Your task to perform on an android device: When is my next appointment? Image 0: 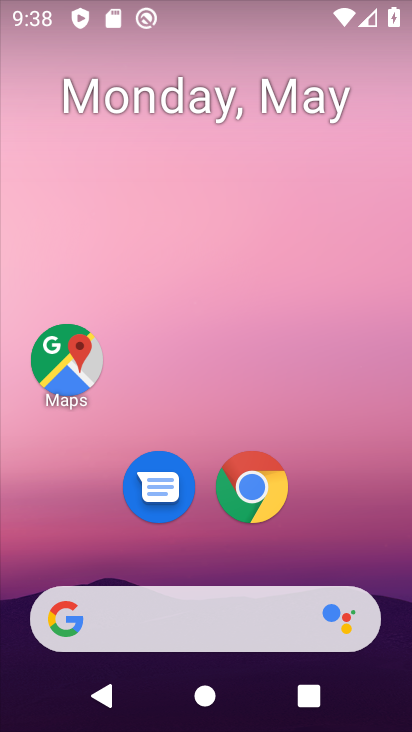
Step 0: drag from (226, 509) to (238, 79)
Your task to perform on an android device: When is my next appointment? Image 1: 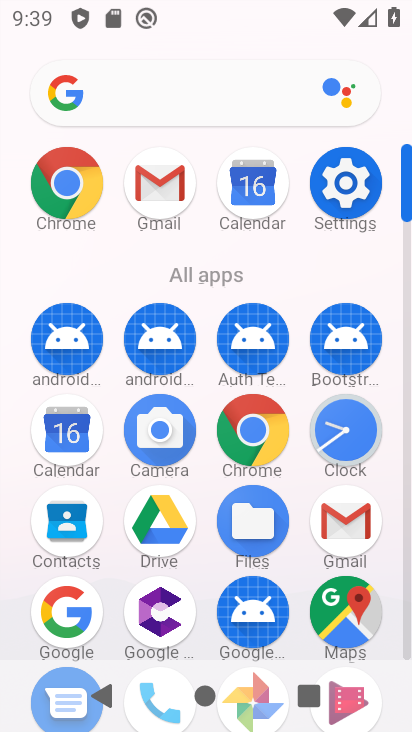
Step 1: click (247, 198)
Your task to perform on an android device: When is my next appointment? Image 2: 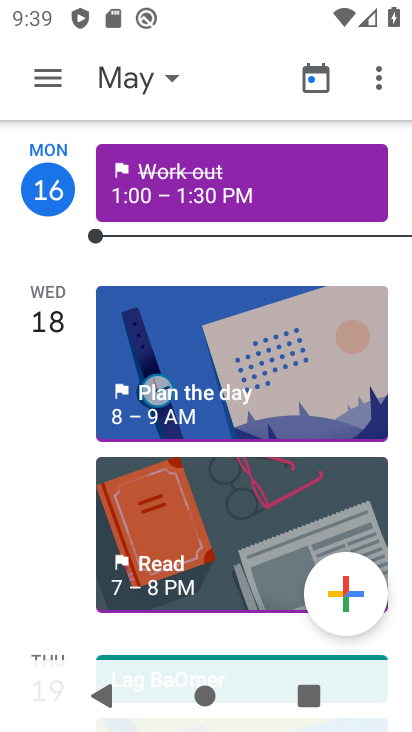
Step 2: task complete